Your task to perform on an android device: Show me some nice wallpapers for my laptop Image 0: 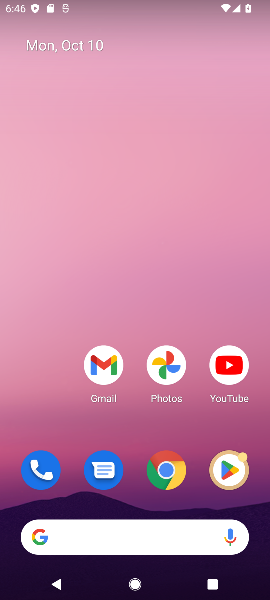
Step 0: click (169, 478)
Your task to perform on an android device: Show me some nice wallpapers for my laptop Image 1: 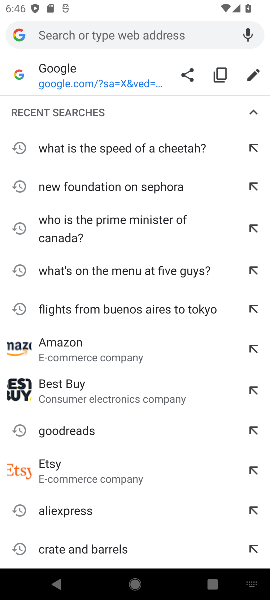
Step 1: type "Show me some nice wallpapers for my laptop"
Your task to perform on an android device: Show me some nice wallpapers for my laptop Image 2: 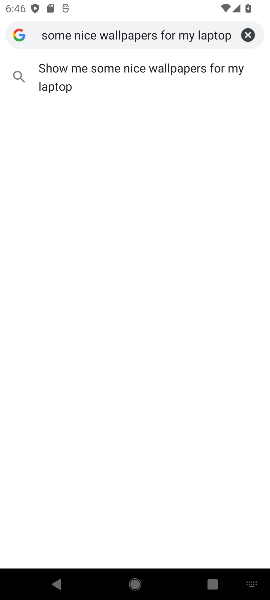
Step 2: click (148, 80)
Your task to perform on an android device: Show me some nice wallpapers for my laptop Image 3: 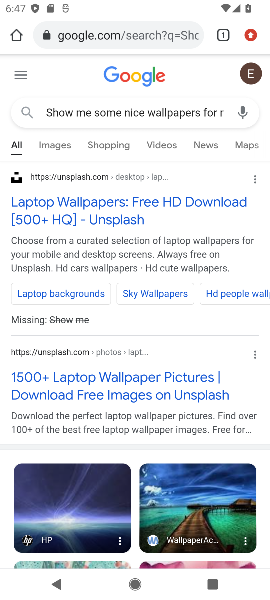
Step 3: click (45, 143)
Your task to perform on an android device: Show me some nice wallpapers for my laptop Image 4: 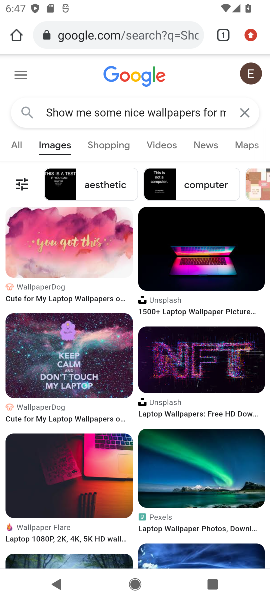
Step 4: task complete